Your task to perform on an android device: What's the weather today? Image 0: 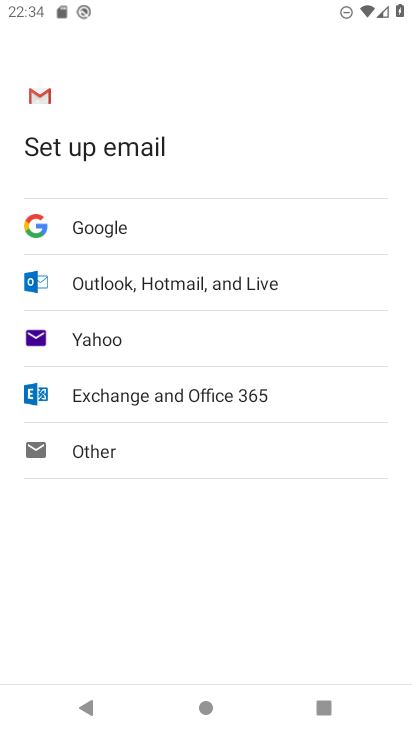
Step 0: press home button
Your task to perform on an android device: What's the weather today? Image 1: 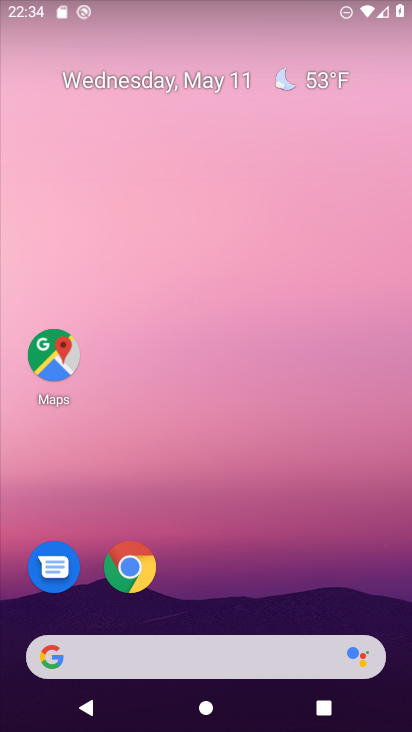
Step 1: click (160, 647)
Your task to perform on an android device: What's the weather today? Image 2: 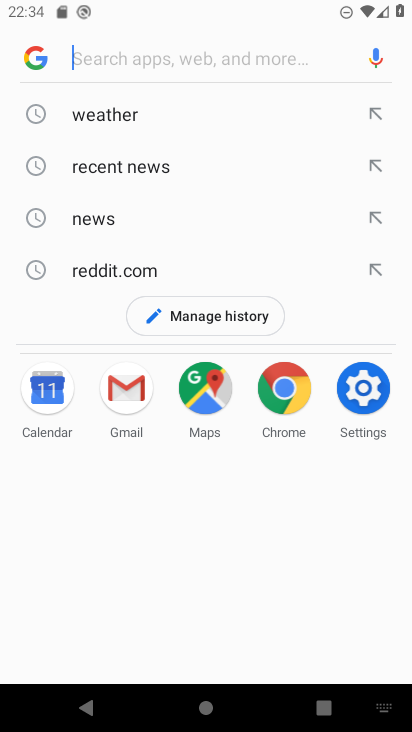
Step 2: type "What's the weather today?"
Your task to perform on an android device: What's the weather today? Image 3: 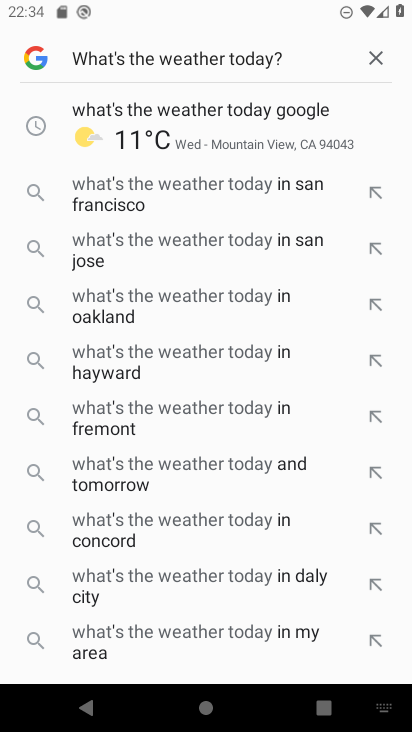
Step 3: click (243, 640)
Your task to perform on an android device: What's the weather today? Image 4: 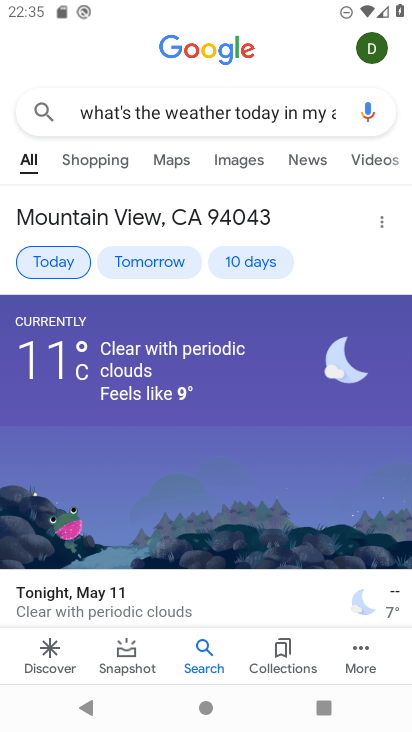
Step 4: task complete